Your task to perform on an android device: Open CNN.com Image 0: 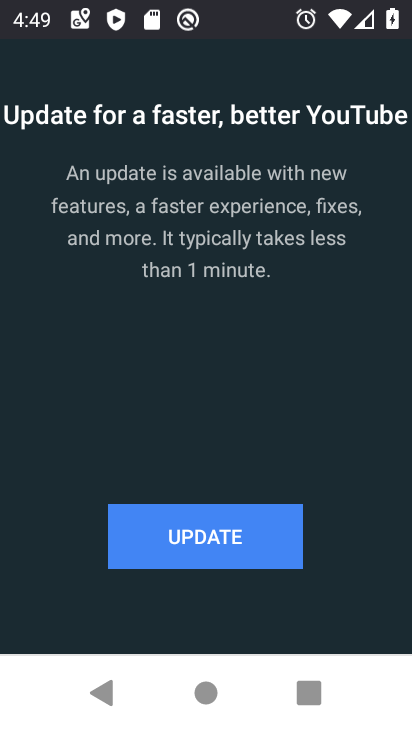
Step 0: press home button
Your task to perform on an android device: Open CNN.com Image 1: 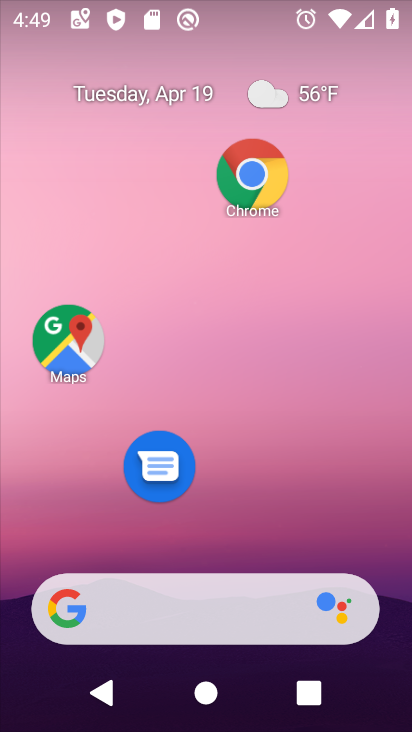
Step 1: click (257, 173)
Your task to perform on an android device: Open CNN.com Image 2: 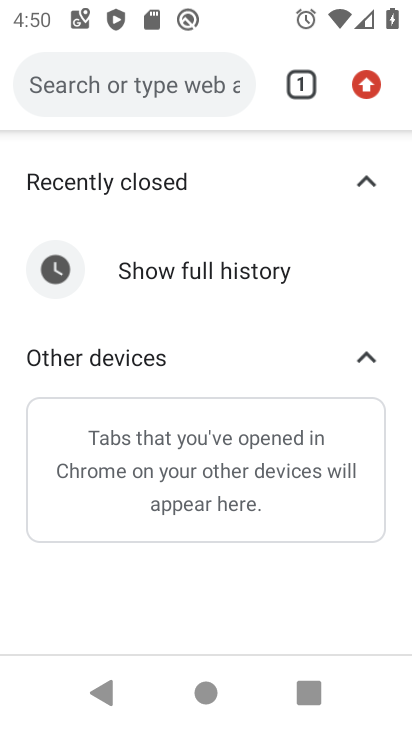
Step 2: click (298, 75)
Your task to perform on an android device: Open CNN.com Image 3: 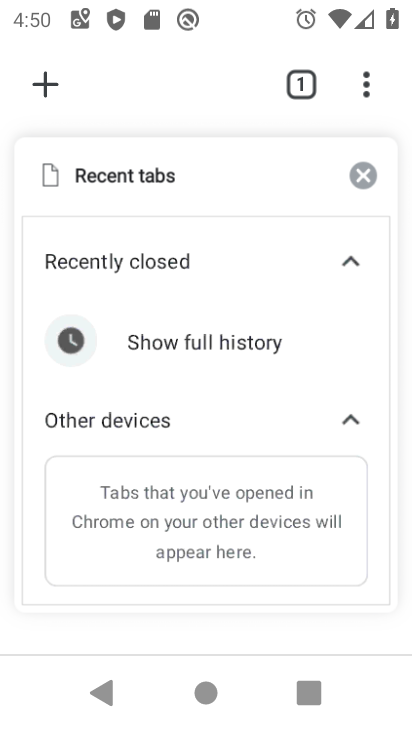
Step 3: click (42, 79)
Your task to perform on an android device: Open CNN.com Image 4: 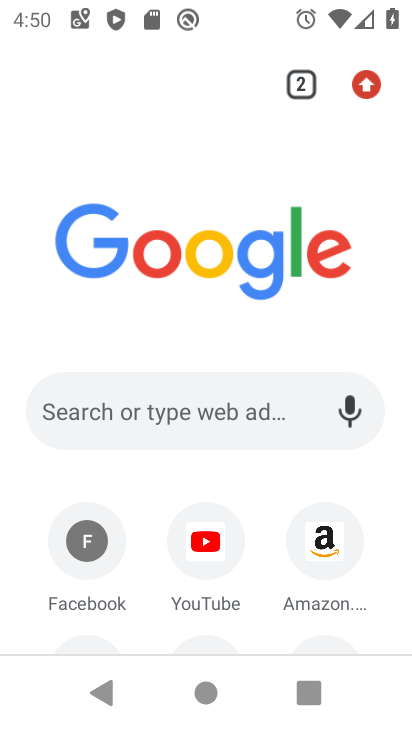
Step 4: click (219, 416)
Your task to perform on an android device: Open CNN.com Image 5: 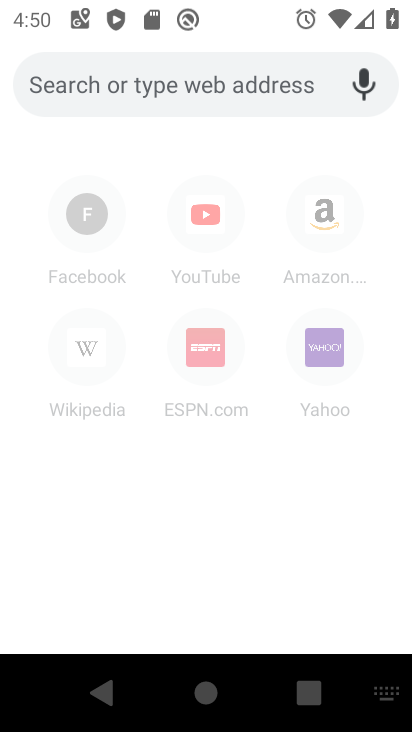
Step 5: type "CNN.com"
Your task to perform on an android device: Open CNN.com Image 6: 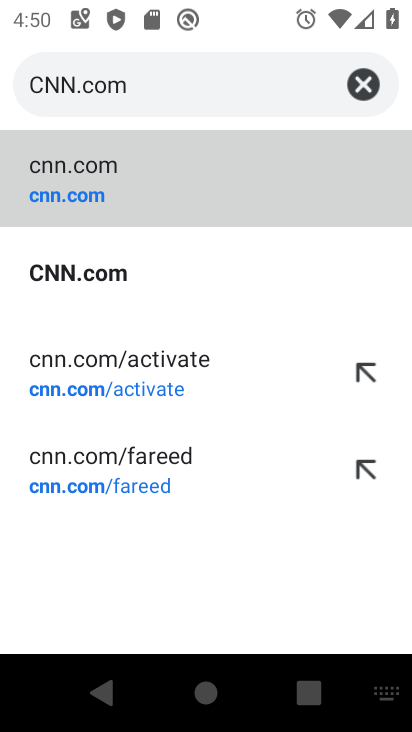
Step 6: click (87, 154)
Your task to perform on an android device: Open CNN.com Image 7: 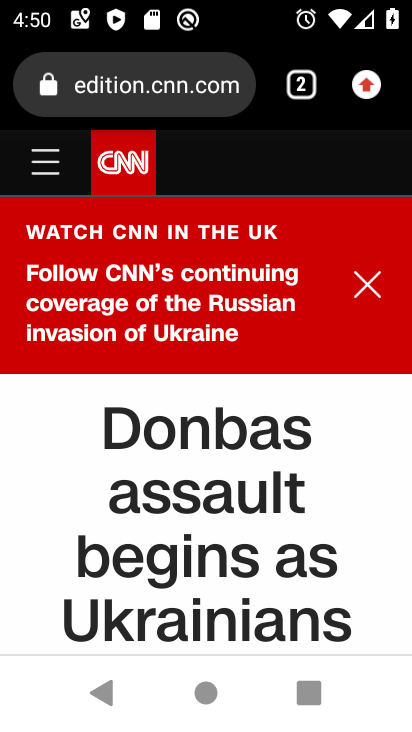
Step 7: task complete